Your task to perform on an android device: turn on the 24-hour format for clock Image 0: 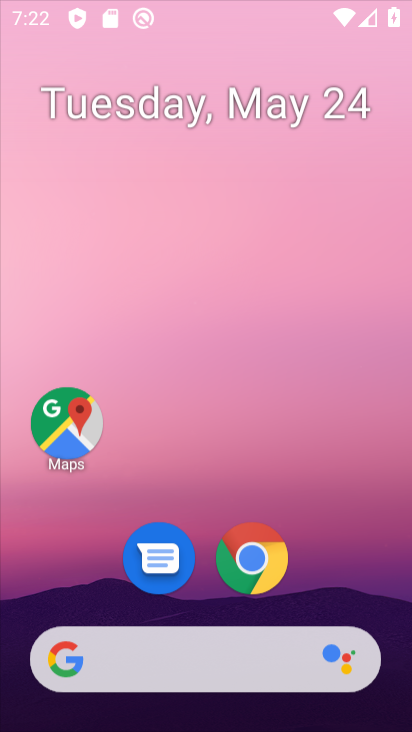
Step 0: press home button
Your task to perform on an android device: turn on the 24-hour format for clock Image 1: 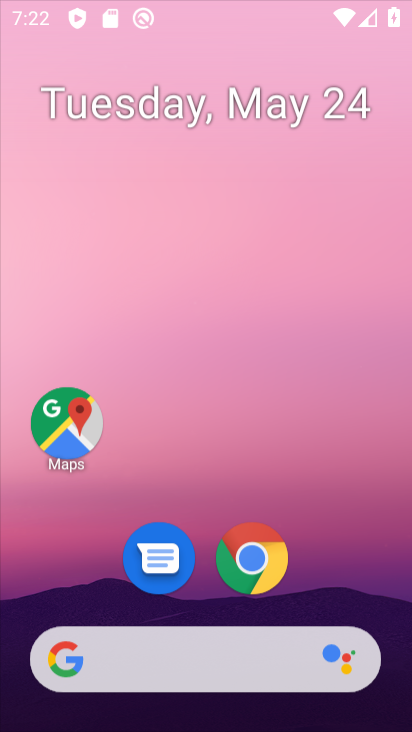
Step 1: click (267, 562)
Your task to perform on an android device: turn on the 24-hour format for clock Image 2: 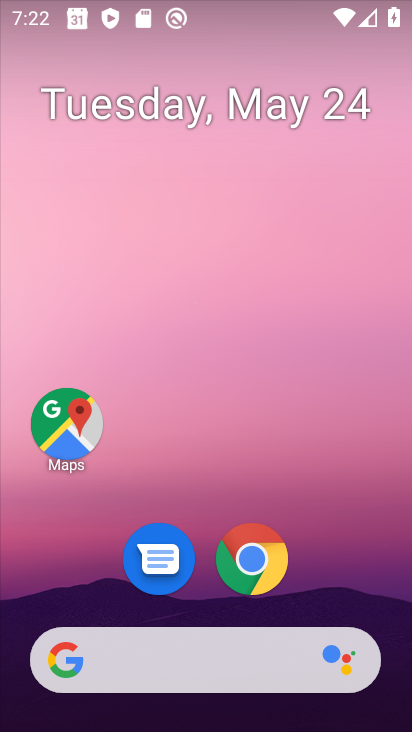
Step 2: drag from (194, 676) to (354, 136)
Your task to perform on an android device: turn on the 24-hour format for clock Image 3: 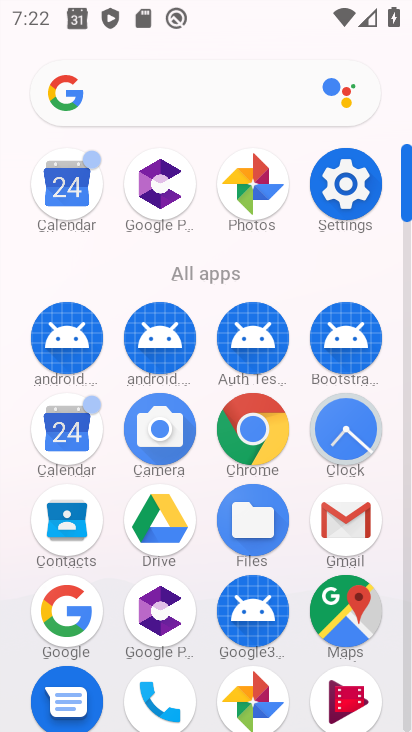
Step 3: click (349, 437)
Your task to perform on an android device: turn on the 24-hour format for clock Image 4: 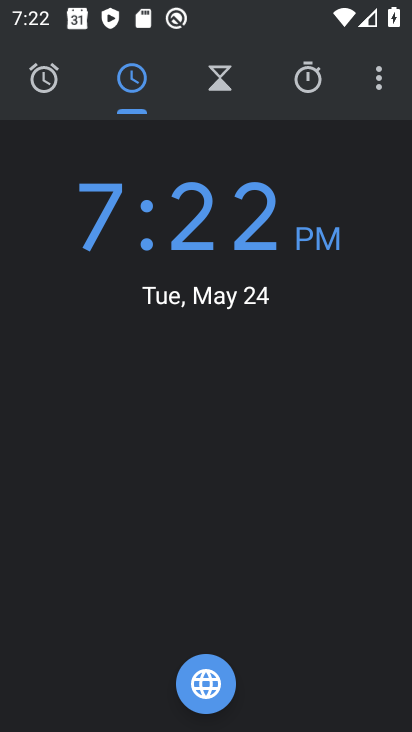
Step 4: click (373, 85)
Your task to perform on an android device: turn on the 24-hour format for clock Image 5: 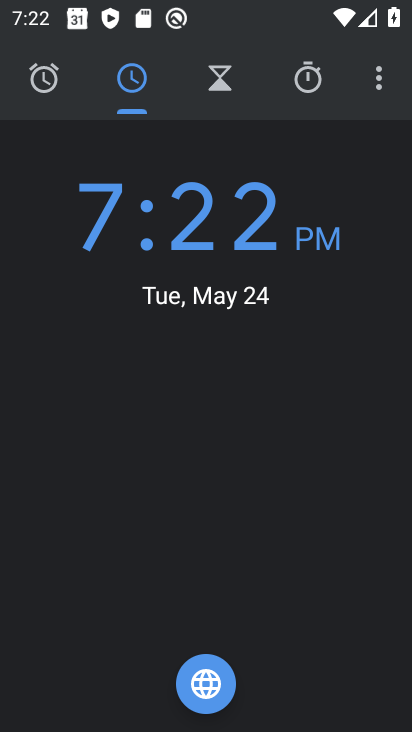
Step 5: click (380, 84)
Your task to perform on an android device: turn on the 24-hour format for clock Image 6: 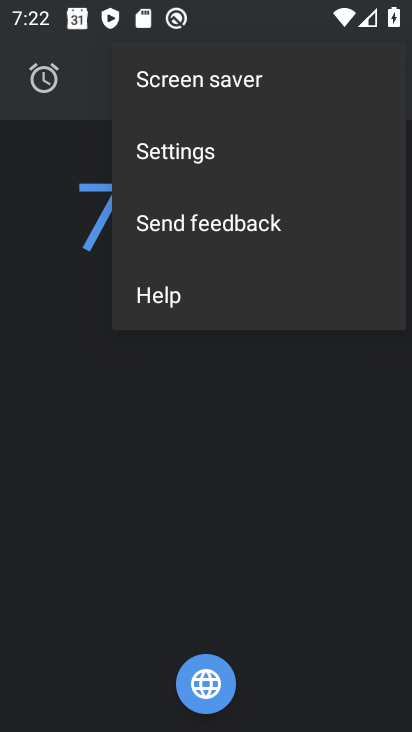
Step 6: click (238, 158)
Your task to perform on an android device: turn on the 24-hour format for clock Image 7: 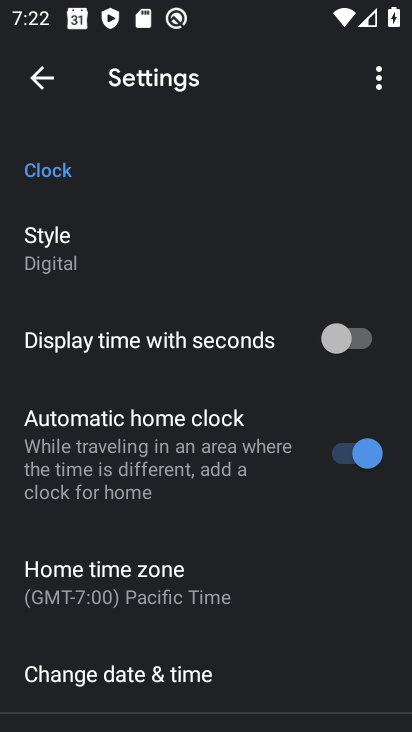
Step 7: drag from (235, 605) to (359, 227)
Your task to perform on an android device: turn on the 24-hour format for clock Image 8: 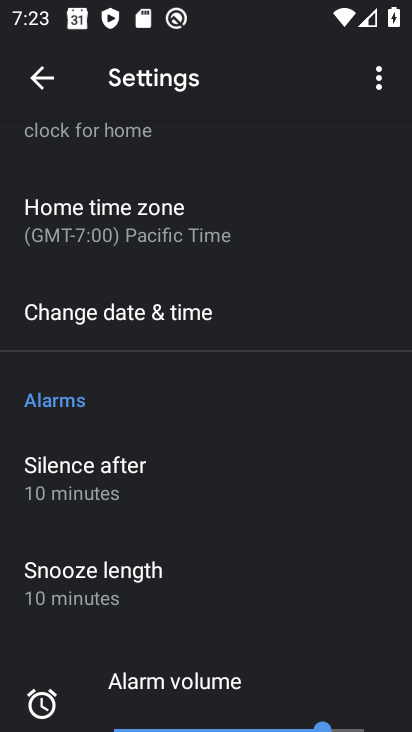
Step 8: click (186, 315)
Your task to perform on an android device: turn on the 24-hour format for clock Image 9: 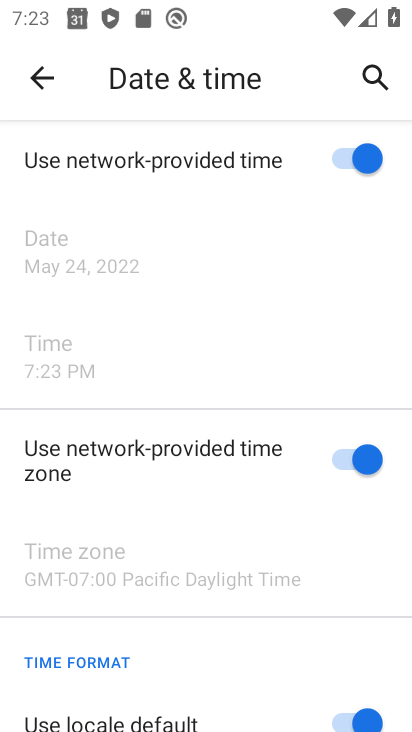
Step 9: drag from (268, 506) to (411, 212)
Your task to perform on an android device: turn on the 24-hour format for clock Image 10: 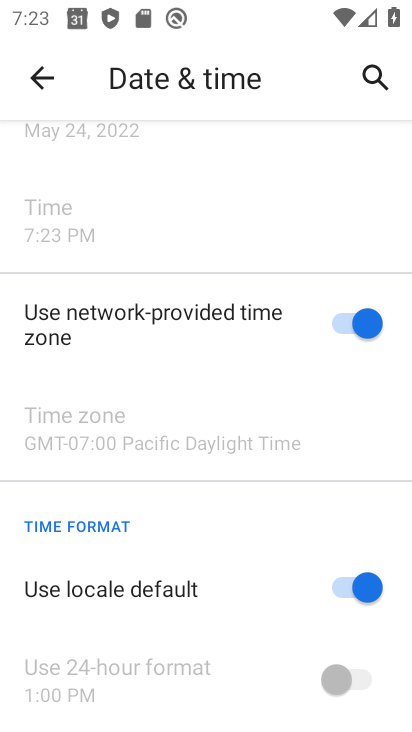
Step 10: drag from (287, 525) to (390, 240)
Your task to perform on an android device: turn on the 24-hour format for clock Image 11: 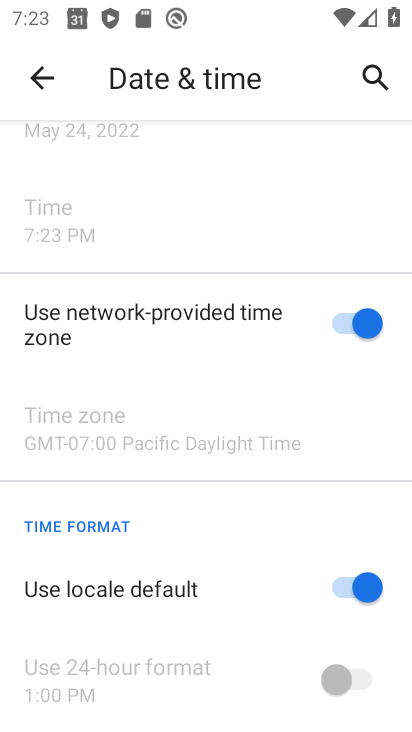
Step 11: drag from (261, 559) to (277, 201)
Your task to perform on an android device: turn on the 24-hour format for clock Image 12: 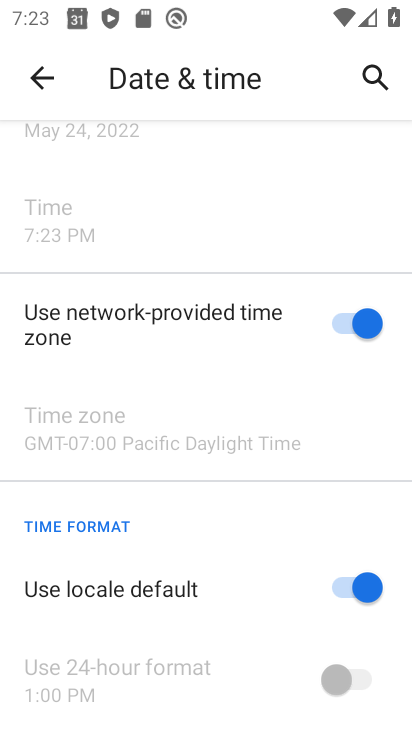
Step 12: click (337, 591)
Your task to perform on an android device: turn on the 24-hour format for clock Image 13: 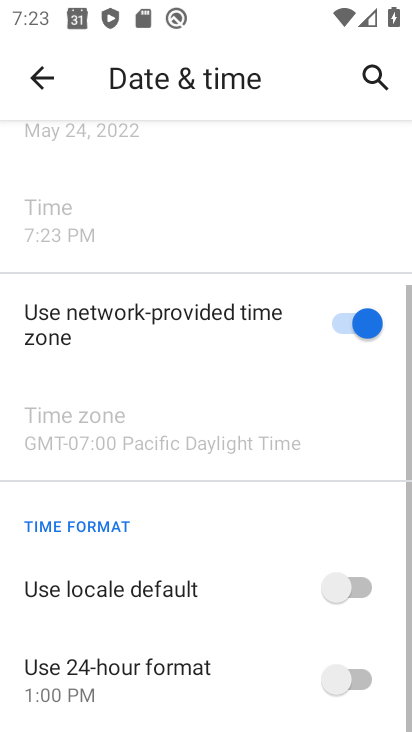
Step 13: click (361, 676)
Your task to perform on an android device: turn on the 24-hour format for clock Image 14: 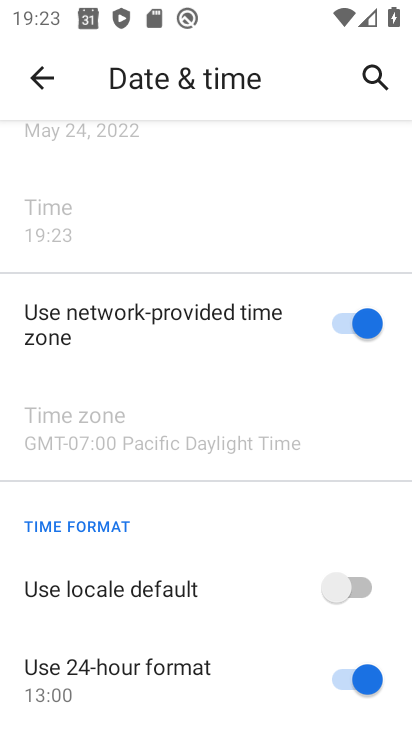
Step 14: task complete